Your task to perform on an android device: check battery use Image 0: 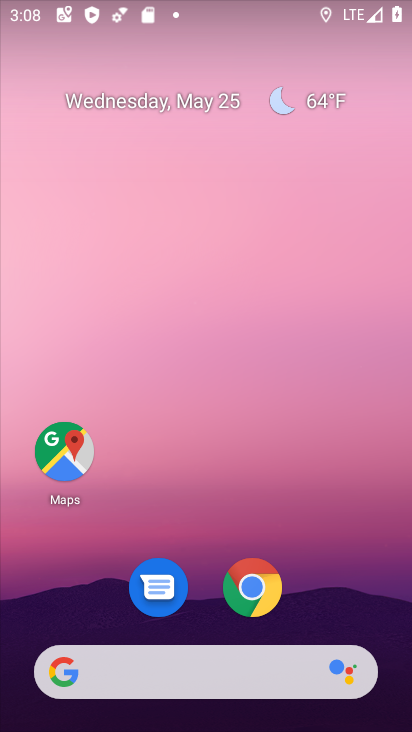
Step 0: drag from (359, 609) to (264, 201)
Your task to perform on an android device: check battery use Image 1: 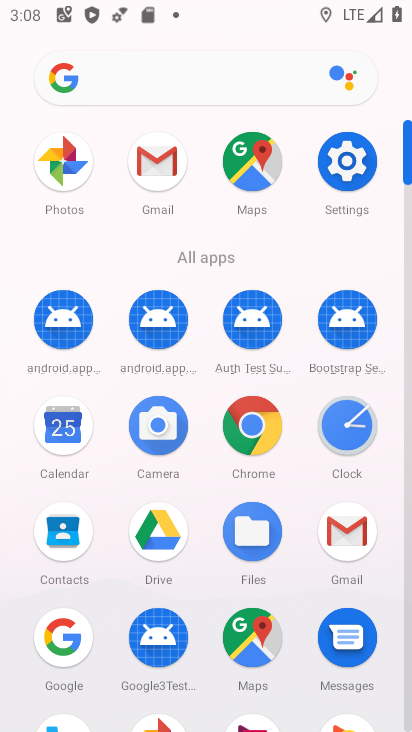
Step 1: click (351, 157)
Your task to perform on an android device: check battery use Image 2: 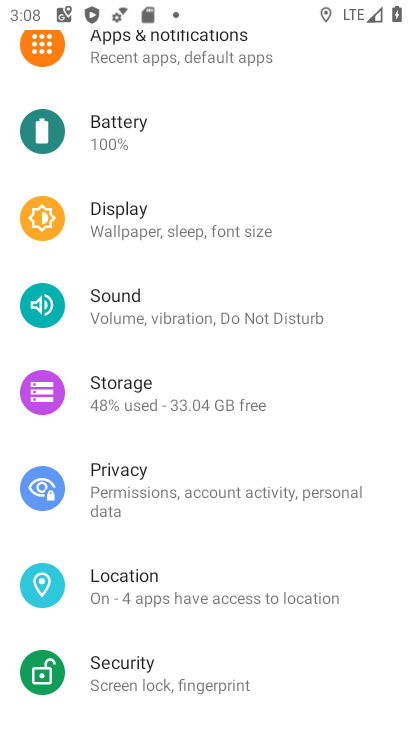
Step 2: click (231, 141)
Your task to perform on an android device: check battery use Image 3: 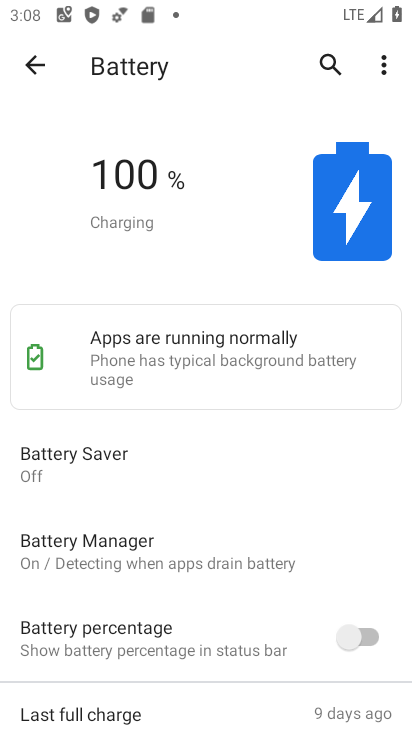
Step 3: click (387, 88)
Your task to perform on an android device: check battery use Image 4: 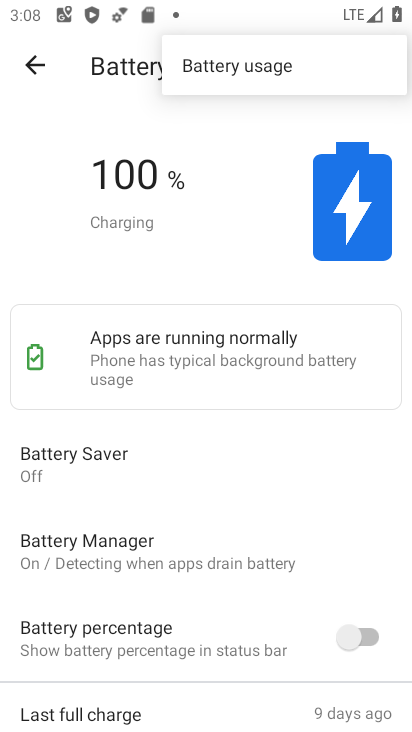
Step 4: click (279, 79)
Your task to perform on an android device: check battery use Image 5: 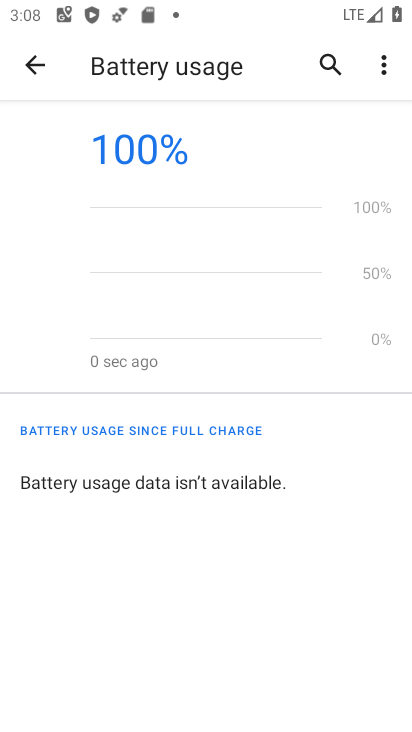
Step 5: task complete